Your task to perform on an android device: check google app version Image 0: 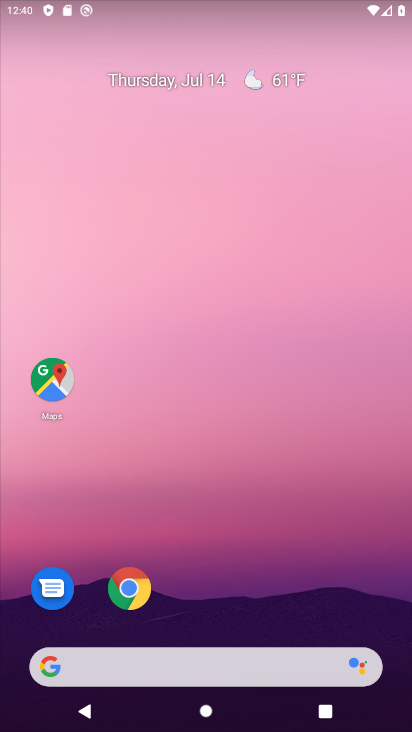
Step 0: drag from (231, 526) to (211, 320)
Your task to perform on an android device: check google app version Image 1: 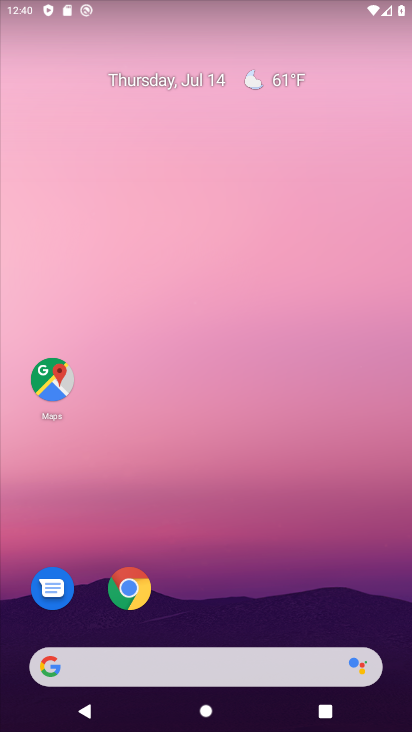
Step 1: drag from (214, 595) to (252, 290)
Your task to perform on an android device: check google app version Image 2: 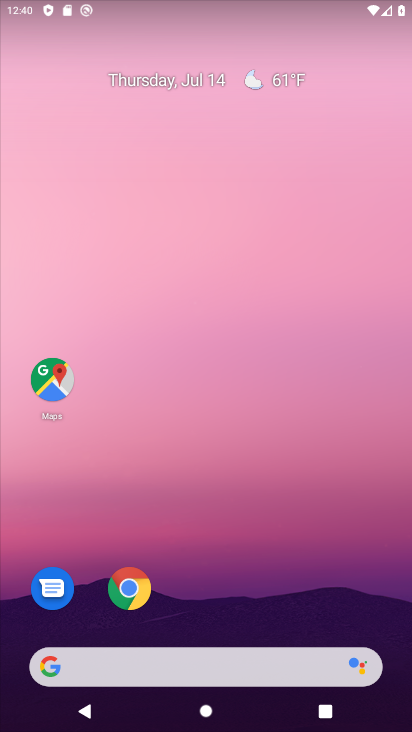
Step 2: drag from (204, 606) to (217, 272)
Your task to perform on an android device: check google app version Image 3: 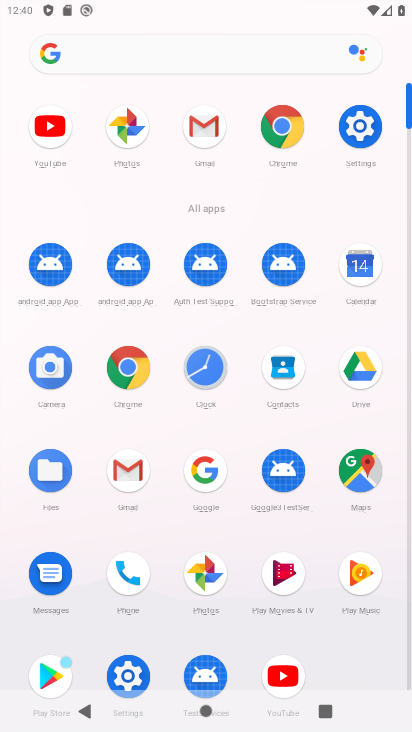
Step 3: click (201, 458)
Your task to perform on an android device: check google app version Image 4: 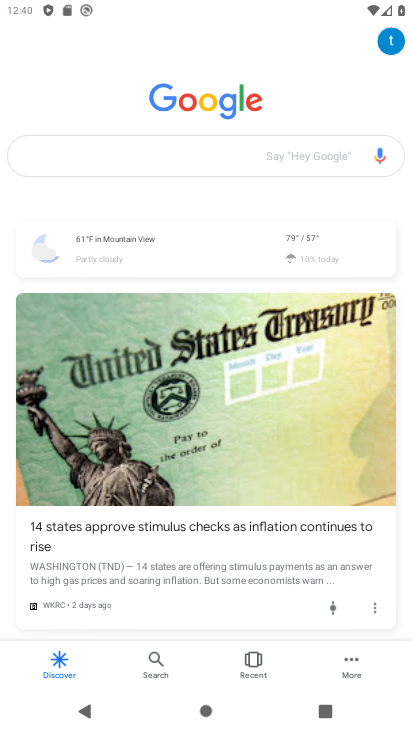
Step 4: click (353, 670)
Your task to perform on an android device: check google app version Image 5: 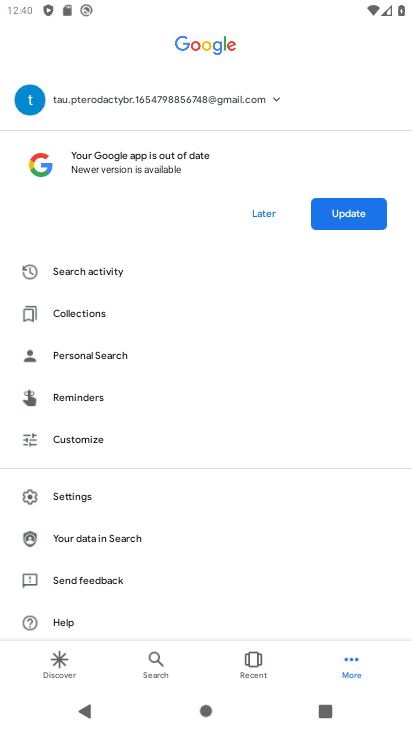
Step 5: drag from (99, 587) to (139, 378)
Your task to perform on an android device: check google app version Image 6: 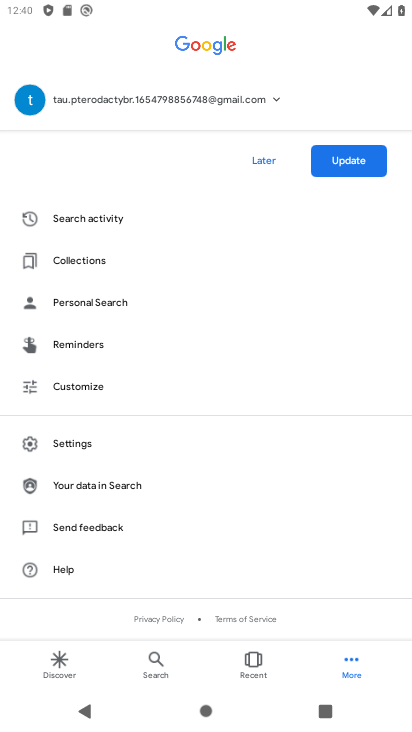
Step 6: click (85, 446)
Your task to perform on an android device: check google app version Image 7: 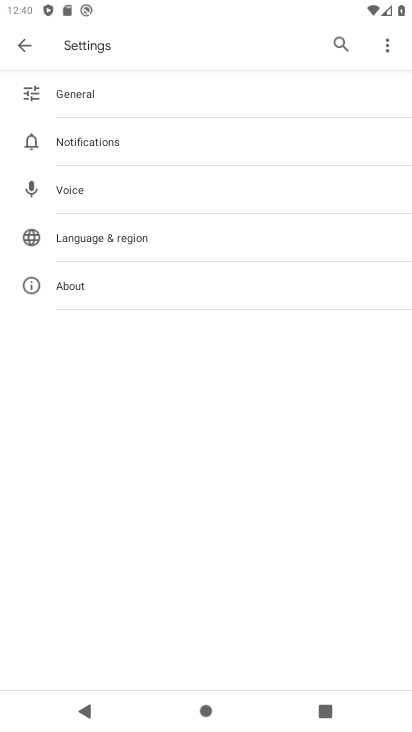
Step 7: click (95, 280)
Your task to perform on an android device: check google app version Image 8: 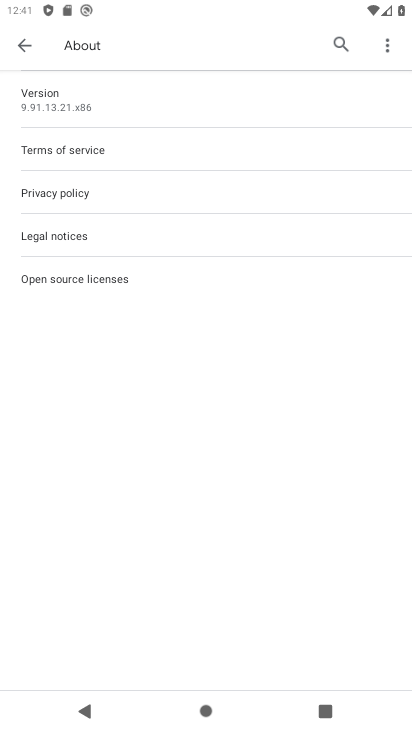
Step 8: click (72, 97)
Your task to perform on an android device: check google app version Image 9: 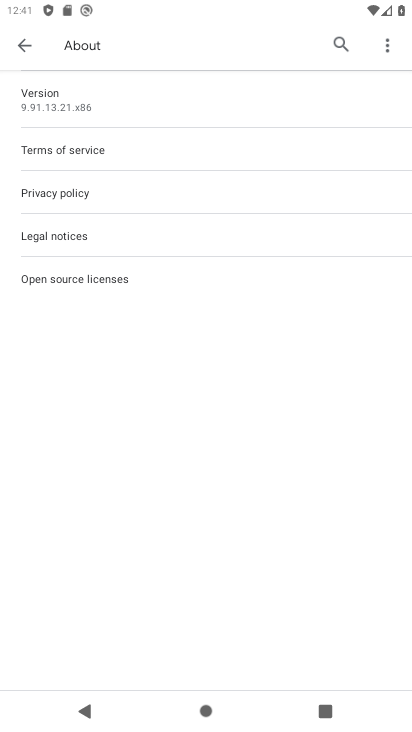
Step 9: task complete